Your task to perform on an android device: check storage Image 0: 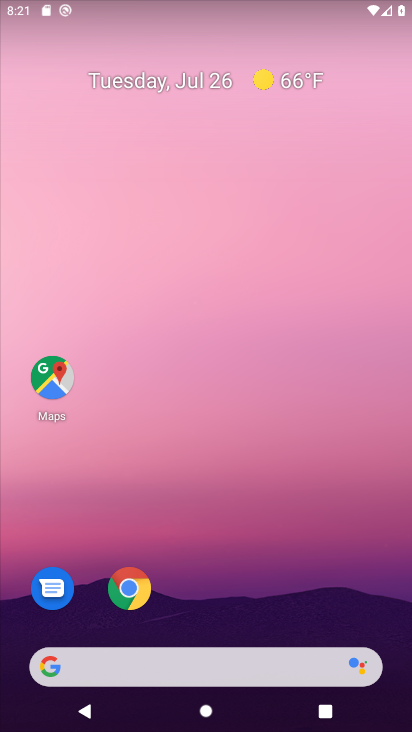
Step 0: drag from (223, 668) to (223, 188)
Your task to perform on an android device: check storage Image 1: 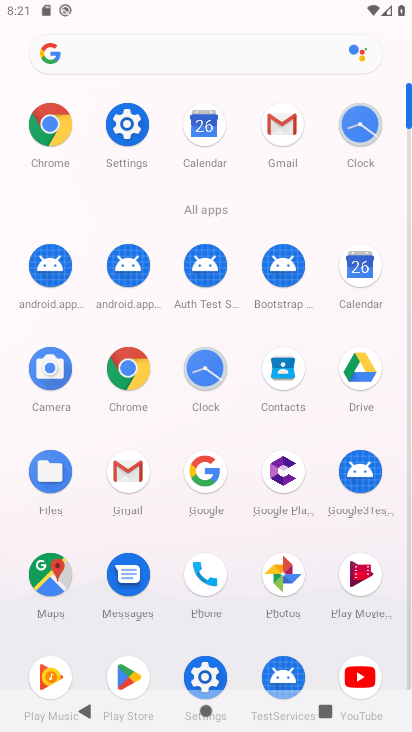
Step 1: click (136, 119)
Your task to perform on an android device: check storage Image 2: 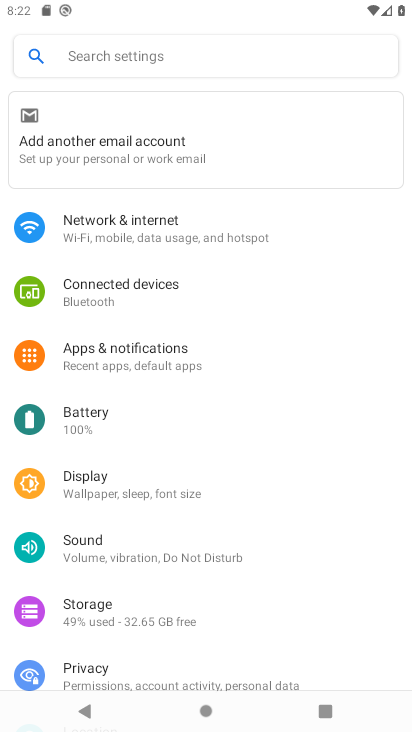
Step 2: click (88, 611)
Your task to perform on an android device: check storage Image 3: 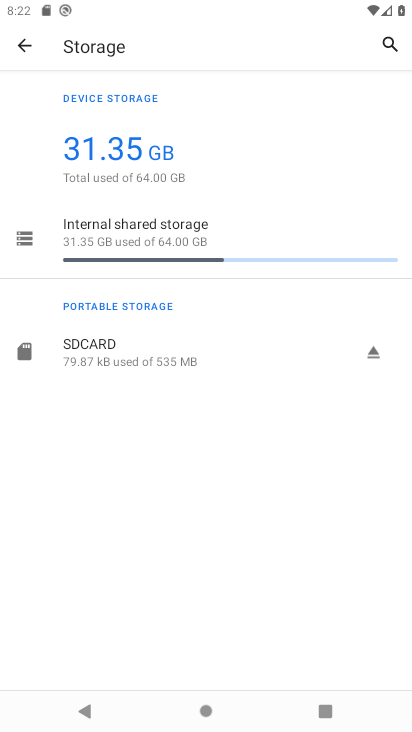
Step 3: task complete